Your task to perform on an android device: toggle sleep mode Image 0: 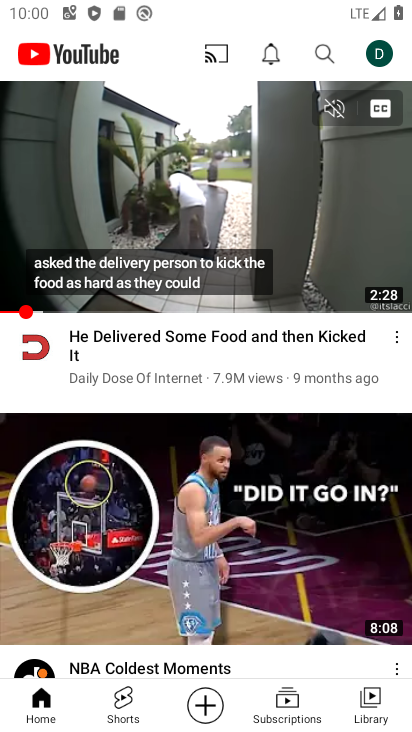
Step 0: press home button
Your task to perform on an android device: toggle sleep mode Image 1: 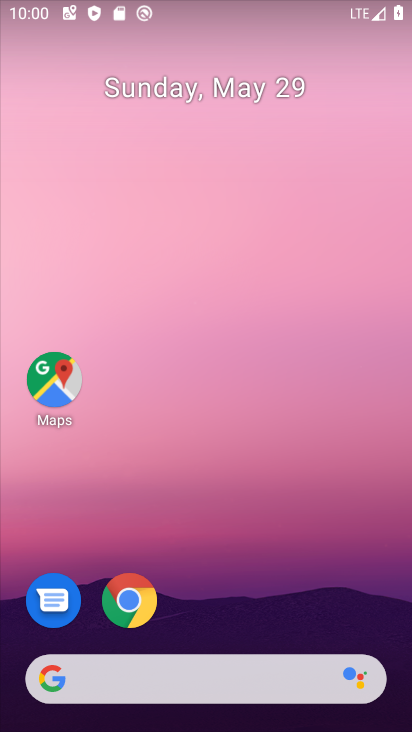
Step 1: drag from (254, 548) to (254, 201)
Your task to perform on an android device: toggle sleep mode Image 2: 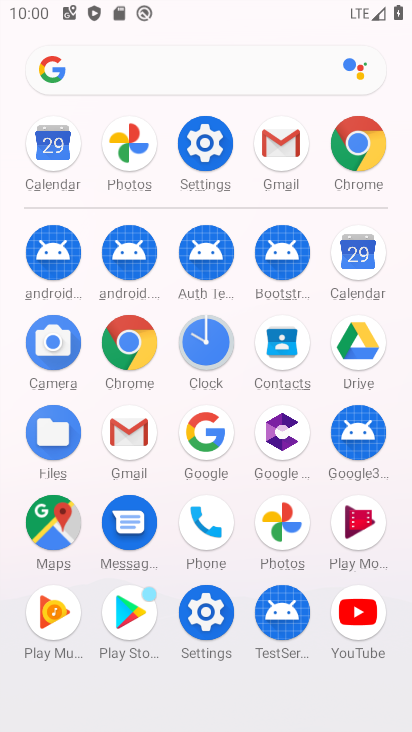
Step 2: click (203, 164)
Your task to perform on an android device: toggle sleep mode Image 3: 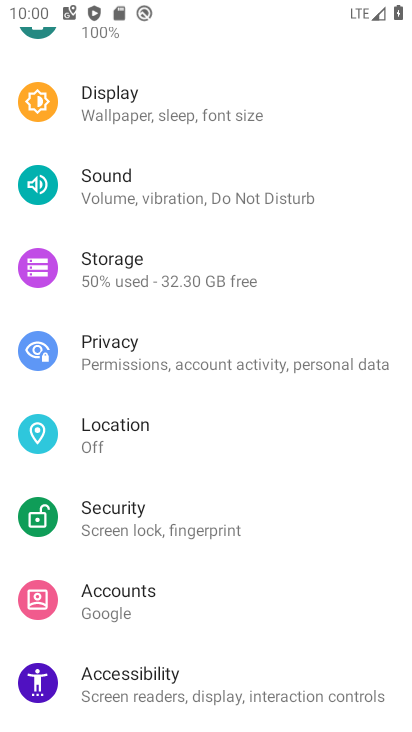
Step 3: click (132, 97)
Your task to perform on an android device: toggle sleep mode Image 4: 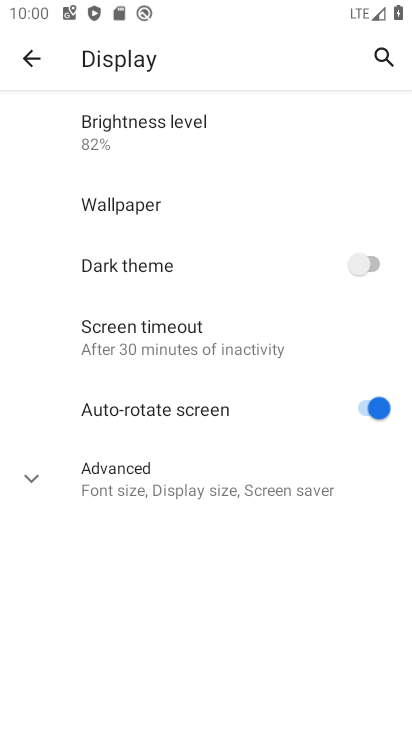
Step 4: task complete